Your task to perform on an android device: add a label to a message in the gmail app Image 0: 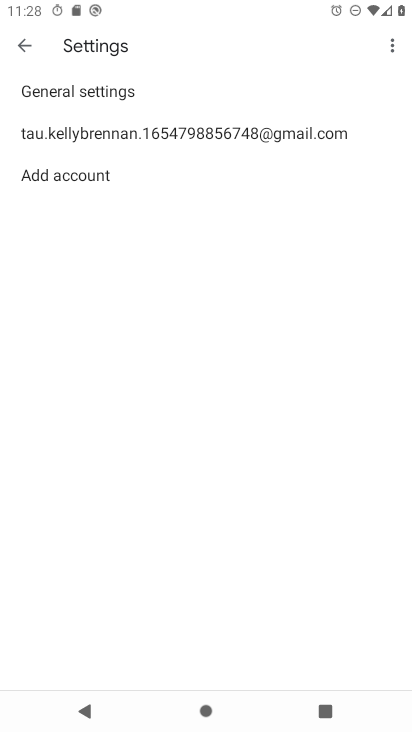
Step 0: press back button
Your task to perform on an android device: add a label to a message in the gmail app Image 1: 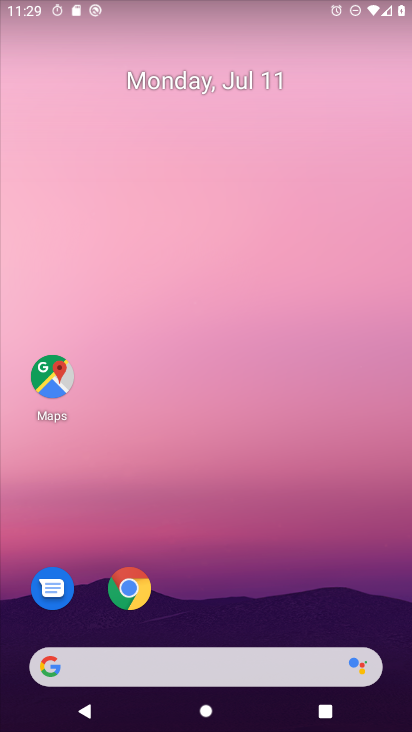
Step 1: drag from (232, 565) to (275, 24)
Your task to perform on an android device: add a label to a message in the gmail app Image 2: 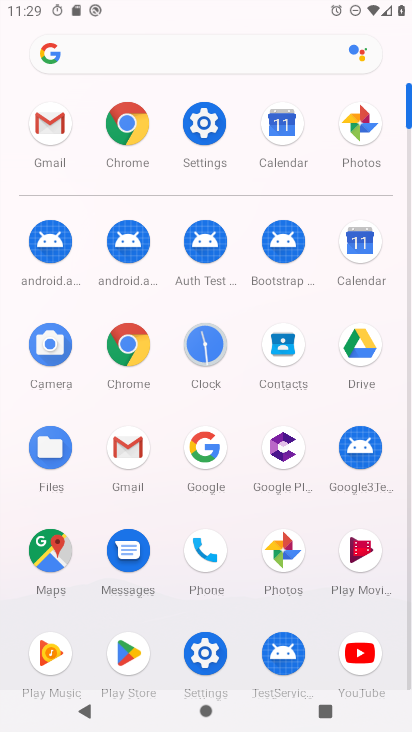
Step 2: click (138, 431)
Your task to perform on an android device: add a label to a message in the gmail app Image 3: 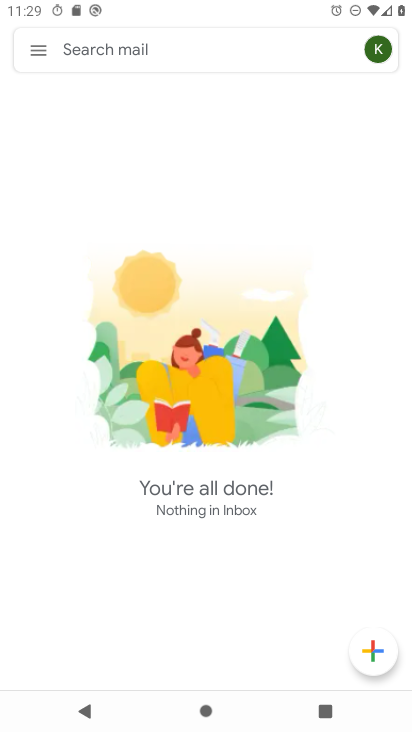
Step 3: click (27, 46)
Your task to perform on an android device: add a label to a message in the gmail app Image 4: 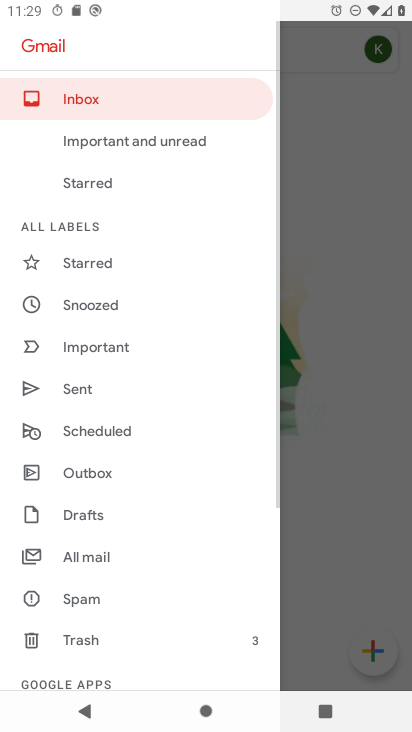
Step 4: click (125, 561)
Your task to perform on an android device: add a label to a message in the gmail app Image 5: 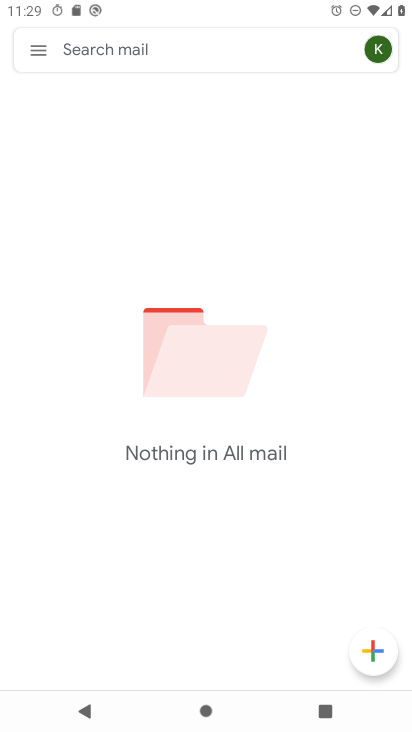
Step 5: task complete